Your task to perform on an android device: Do I have any events this weekend? Image 0: 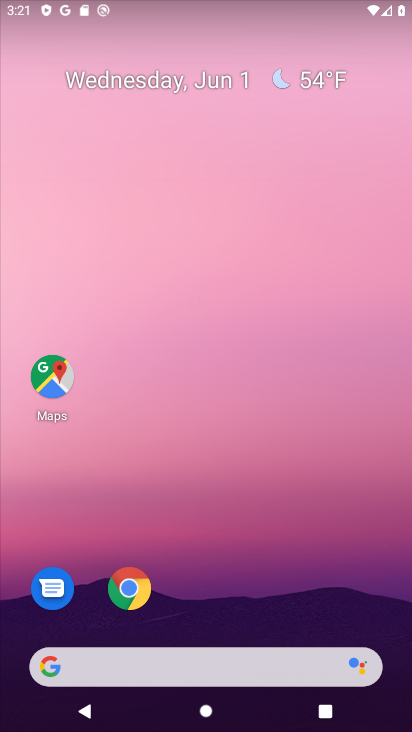
Step 0: drag from (205, 619) to (230, 139)
Your task to perform on an android device: Do I have any events this weekend? Image 1: 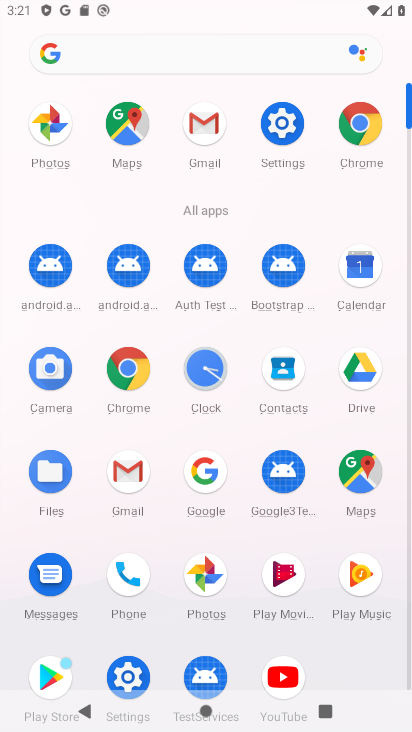
Step 1: click (368, 283)
Your task to perform on an android device: Do I have any events this weekend? Image 2: 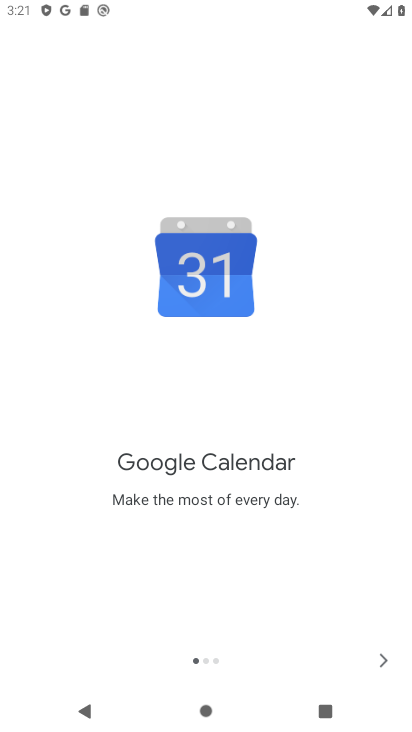
Step 2: click (390, 652)
Your task to perform on an android device: Do I have any events this weekend? Image 3: 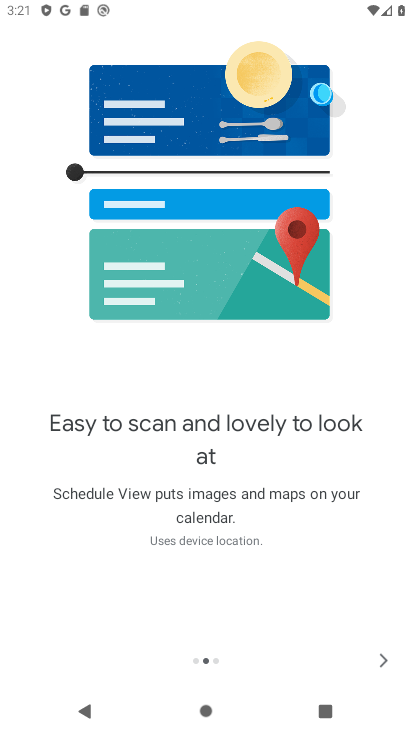
Step 3: click (376, 654)
Your task to perform on an android device: Do I have any events this weekend? Image 4: 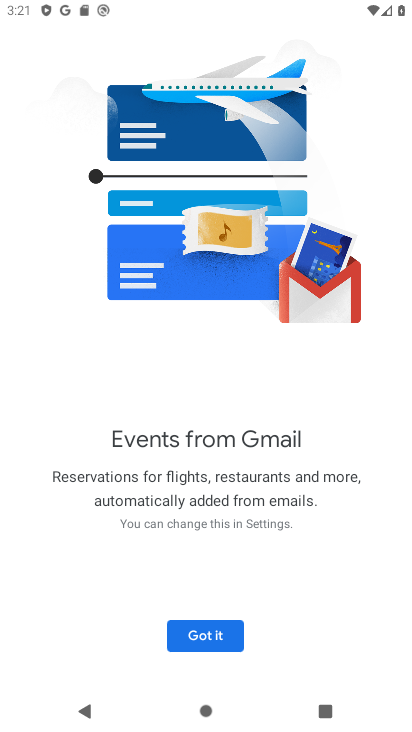
Step 4: click (224, 638)
Your task to perform on an android device: Do I have any events this weekend? Image 5: 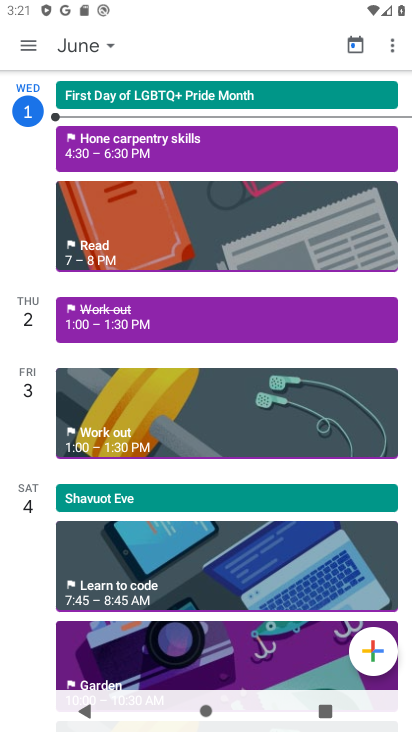
Step 5: click (24, 42)
Your task to perform on an android device: Do I have any events this weekend? Image 6: 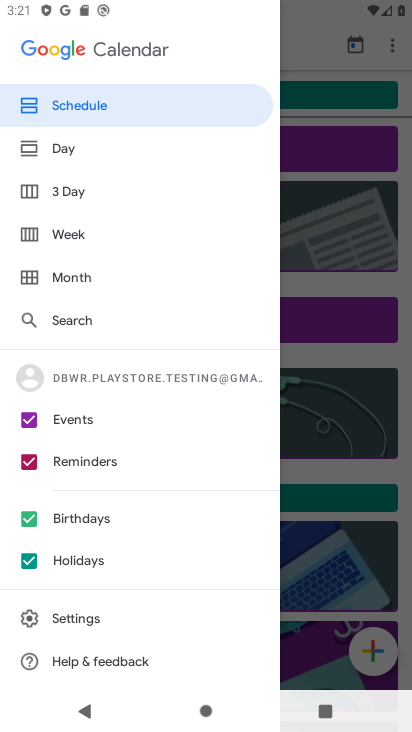
Step 6: click (76, 463)
Your task to perform on an android device: Do I have any events this weekend? Image 7: 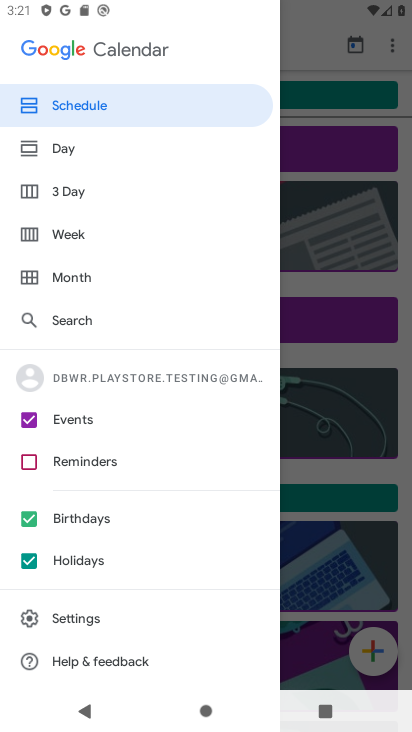
Step 7: click (85, 520)
Your task to perform on an android device: Do I have any events this weekend? Image 8: 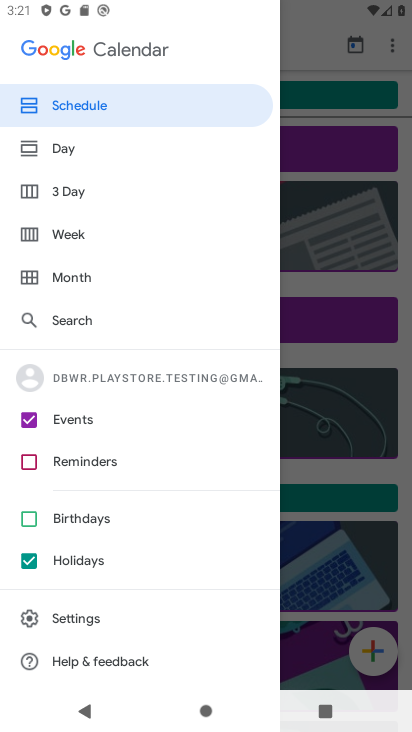
Step 8: click (87, 555)
Your task to perform on an android device: Do I have any events this weekend? Image 9: 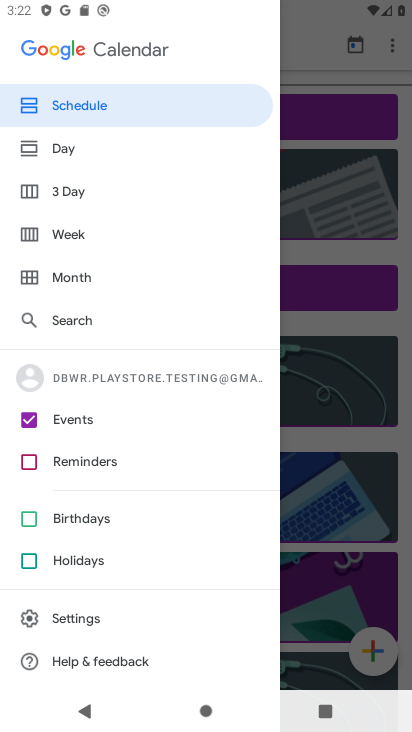
Step 9: click (62, 241)
Your task to perform on an android device: Do I have any events this weekend? Image 10: 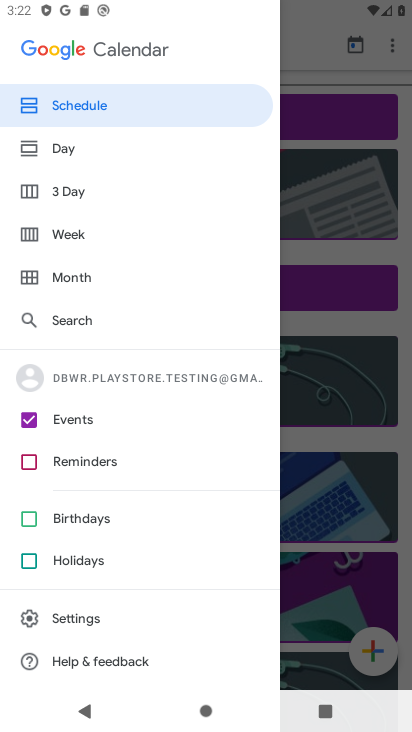
Step 10: click (58, 225)
Your task to perform on an android device: Do I have any events this weekend? Image 11: 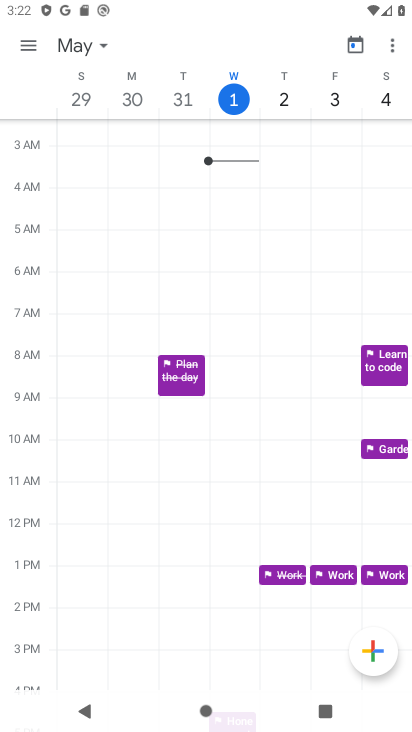
Step 11: task complete